Your task to perform on an android device: Show me the alarms in the clock app Image 0: 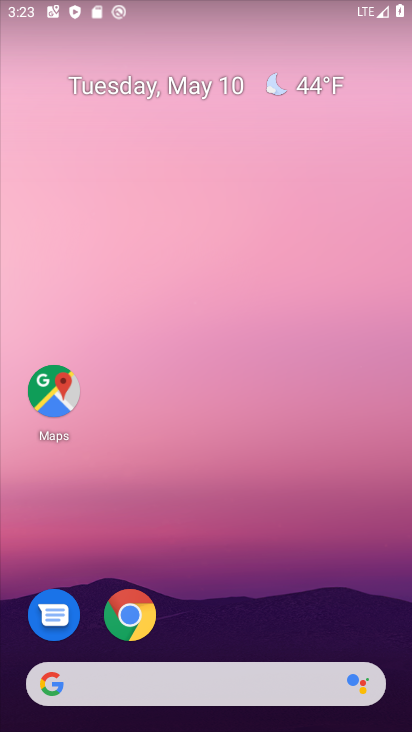
Step 0: drag from (289, 612) to (340, 50)
Your task to perform on an android device: Show me the alarms in the clock app Image 1: 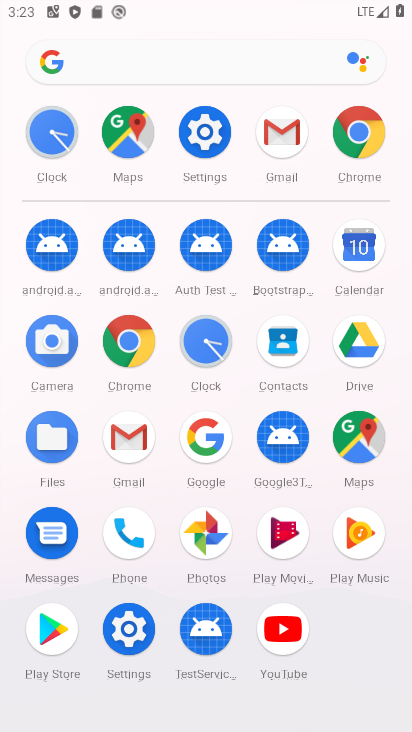
Step 1: click (218, 335)
Your task to perform on an android device: Show me the alarms in the clock app Image 2: 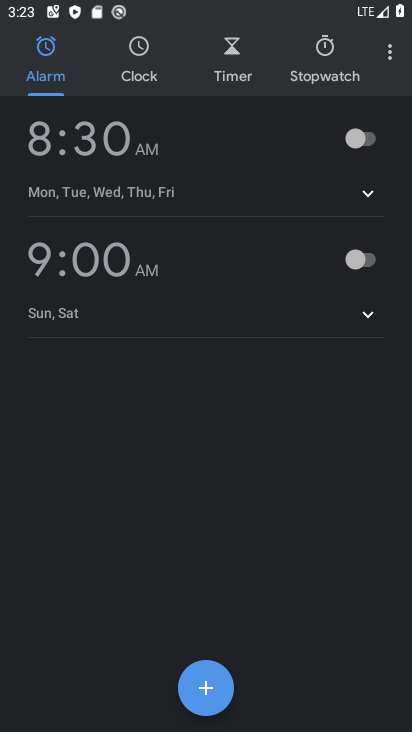
Step 2: click (37, 38)
Your task to perform on an android device: Show me the alarms in the clock app Image 3: 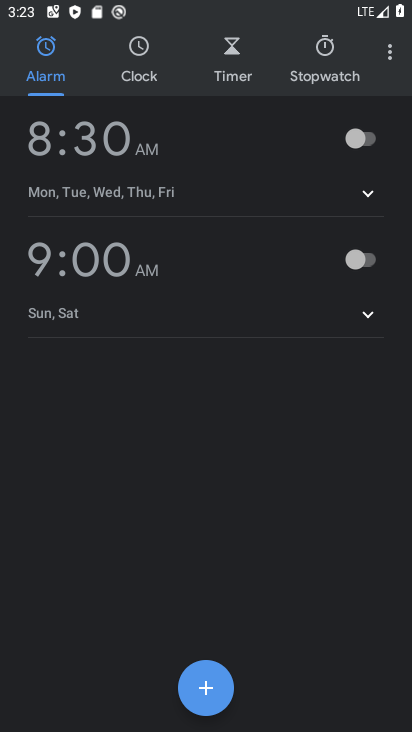
Step 3: task complete